Your task to perform on an android device: turn vacation reply on in the gmail app Image 0: 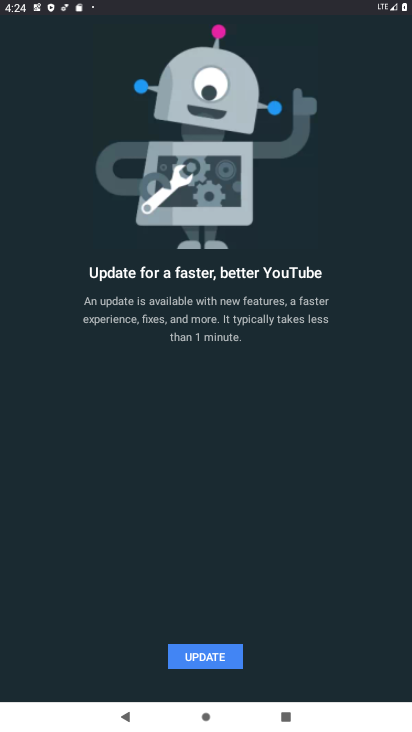
Step 0: press home button
Your task to perform on an android device: turn vacation reply on in the gmail app Image 1: 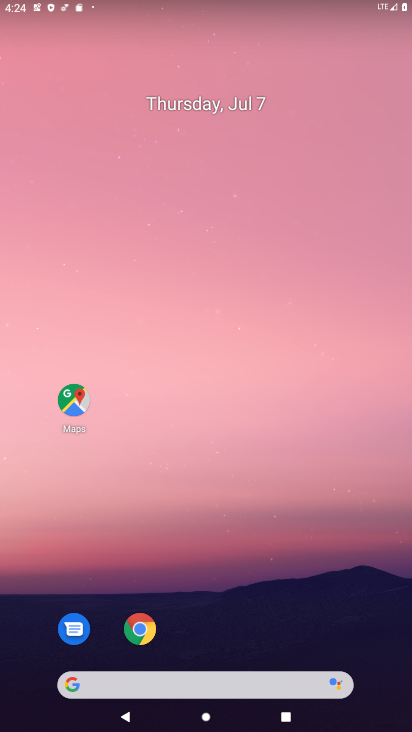
Step 1: drag from (310, 636) to (307, 349)
Your task to perform on an android device: turn vacation reply on in the gmail app Image 2: 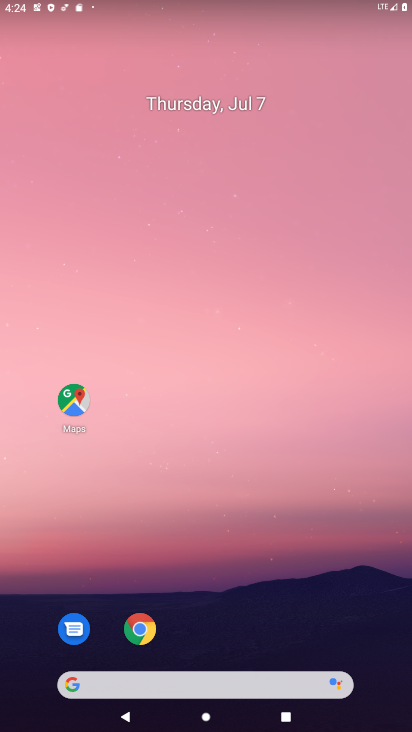
Step 2: drag from (189, 610) to (211, 263)
Your task to perform on an android device: turn vacation reply on in the gmail app Image 3: 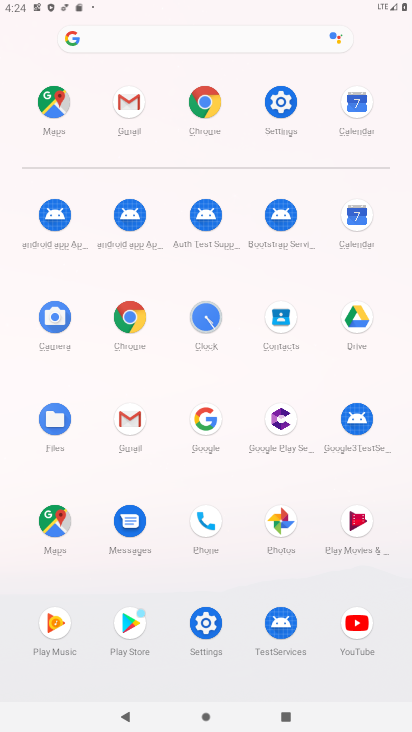
Step 3: click (135, 96)
Your task to perform on an android device: turn vacation reply on in the gmail app Image 4: 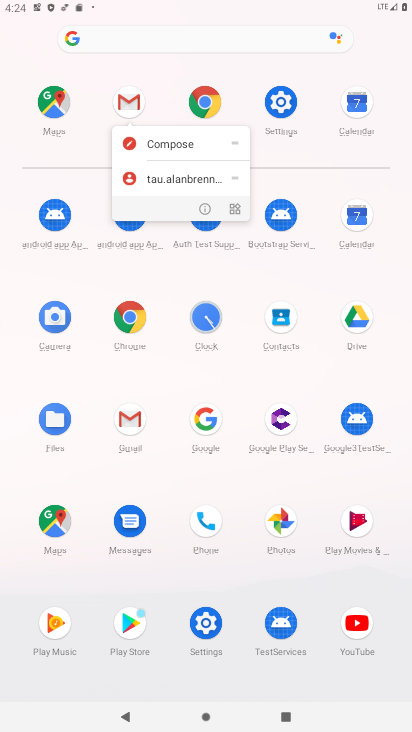
Step 4: click (135, 96)
Your task to perform on an android device: turn vacation reply on in the gmail app Image 5: 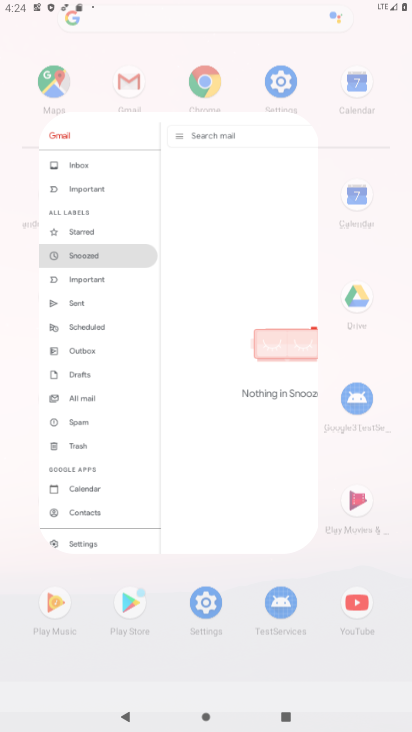
Step 5: click (135, 96)
Your task to perform on an android device: turn vacation reply on in the gmail app Image 6: 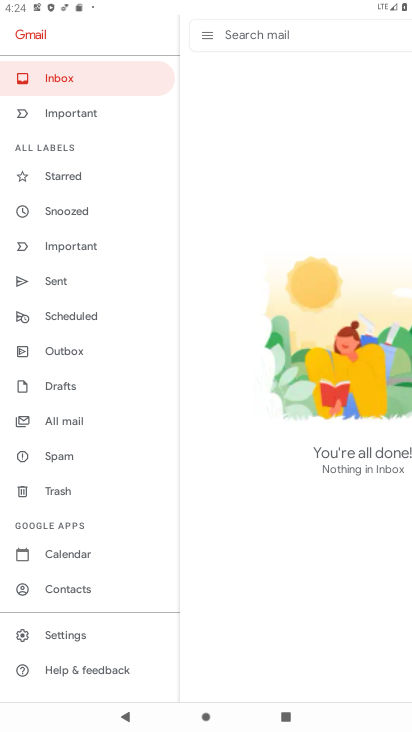
Step 6: click (54, 626)
Your task to perform on an android device: turn vacation reply on in the gmail app Image 7: 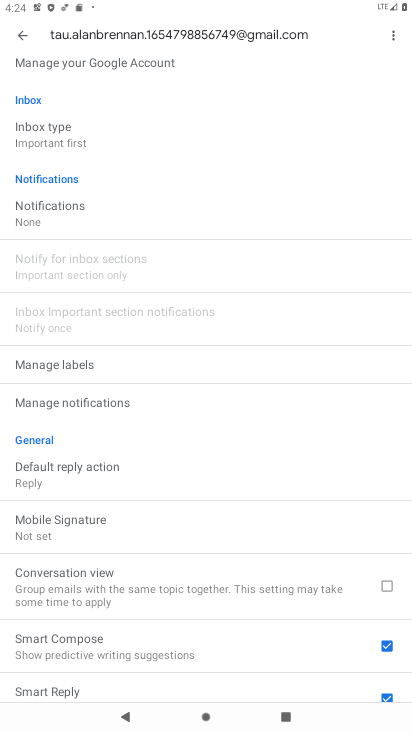
Step 7: drag from (147, 549) to (200, 206)
Your task to perform on an android device: turn vacation reply on in the gmail app Image 8: 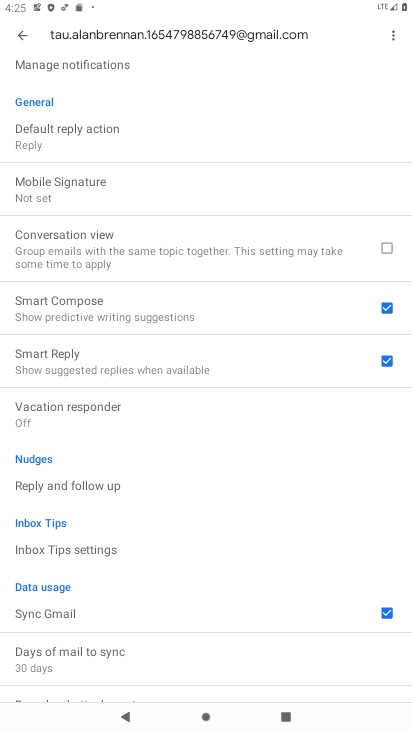
Step 8: drag from (173, 587) to (183, 456)
Your task to perform on an android device: turn vacation reply on in the gmail app Image 9: 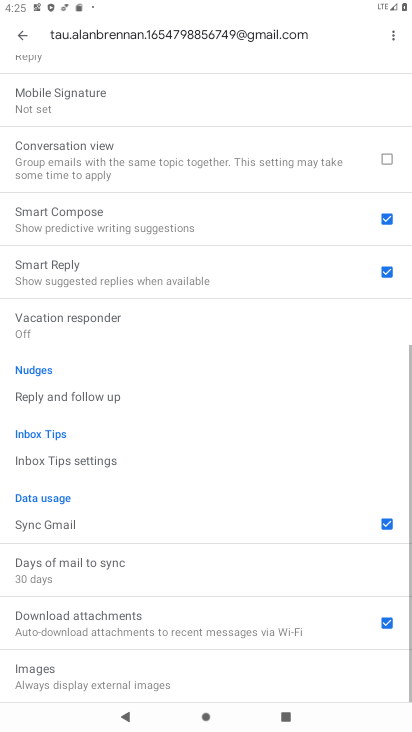
Step 9: click (117, 312)
Your task to perform on an android device: turn vacation reply on in the gmail app Image 10: 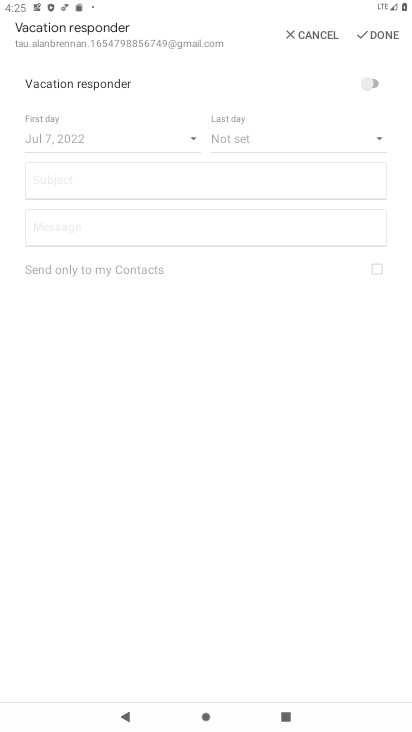
Step 10: click (382, 92)
Your task to perform on an android device: turn vacation reply on in the gmail app Image 11: 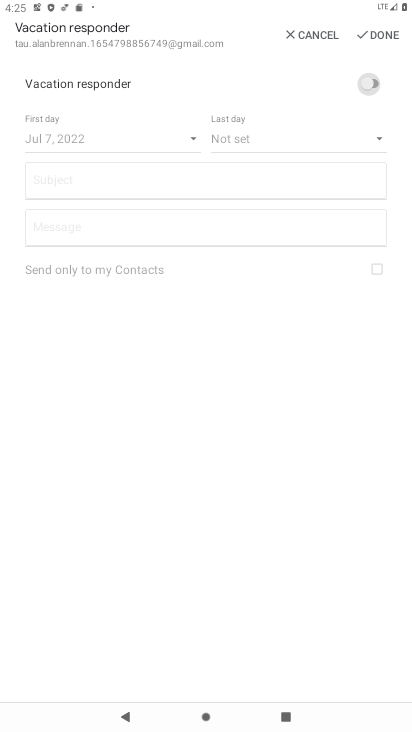
Step 11: click (382, 75)
Your task to perform on an android device: turn vacation reply on in the gmail app Image 12: 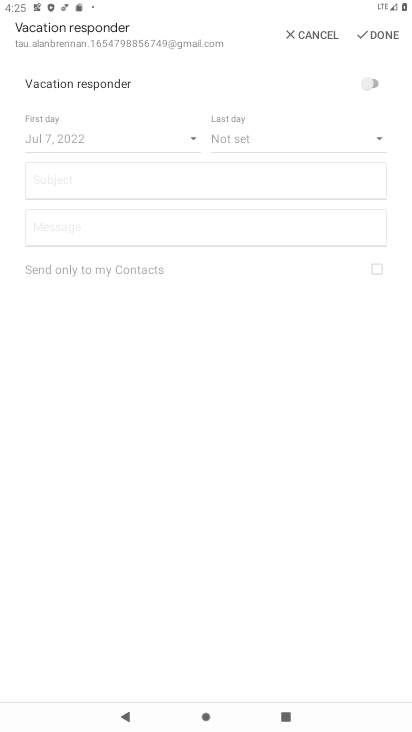
Step 12: task complete